Your task to perform on an android device: toggle priority inbox in the gmail app Image 0: 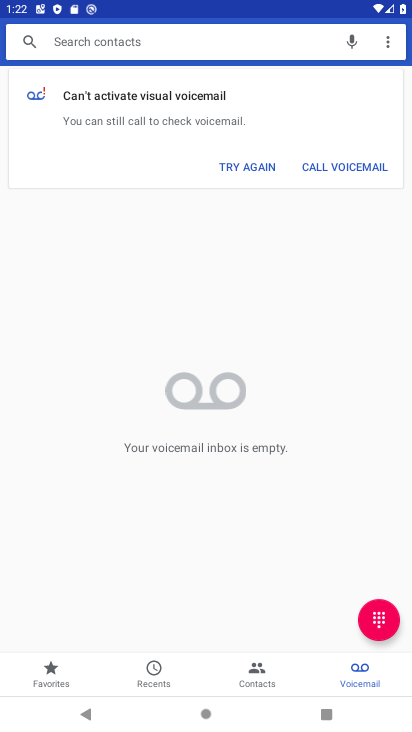
Step 0: press home button
Your task to perform on an android device: toggle priority inbox in the gmail app Image 1: 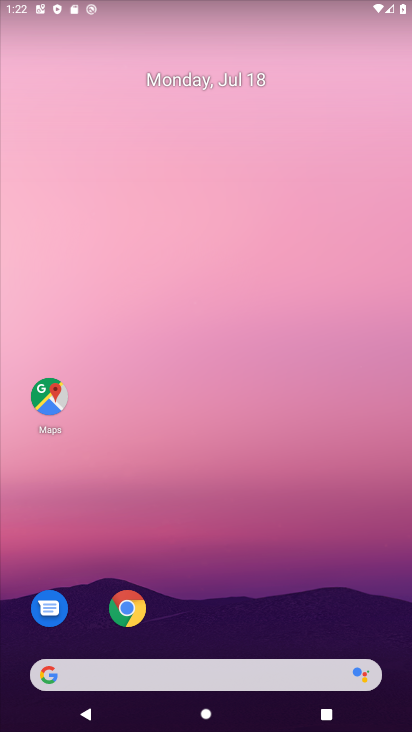
Step 1: drag from (238, 675) to (235, 85)
Your task to perform on an android device: toggle priority inbox in the gmail app Image 2: 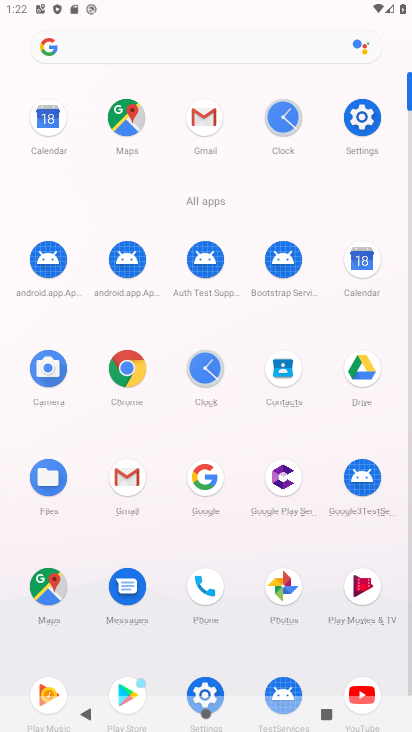
Step 2: click (126, 472)
Your task to perform on an android device: toggle priority inbox in the gmail app Image 3: 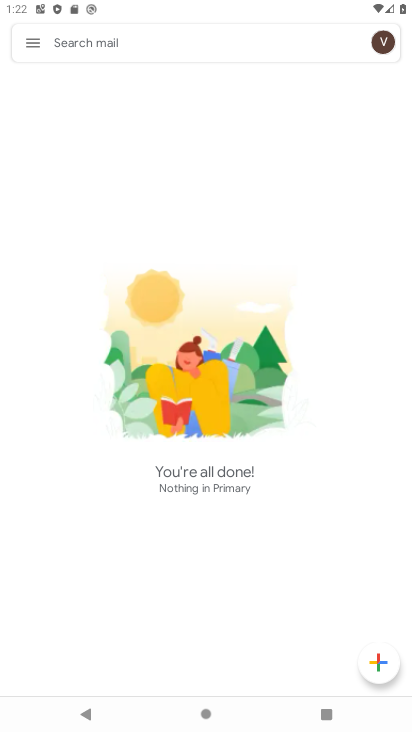
Step 3: click (30, 44)
Your task to perform on an android device: toggle priority inbox in the gmail app Image 4: 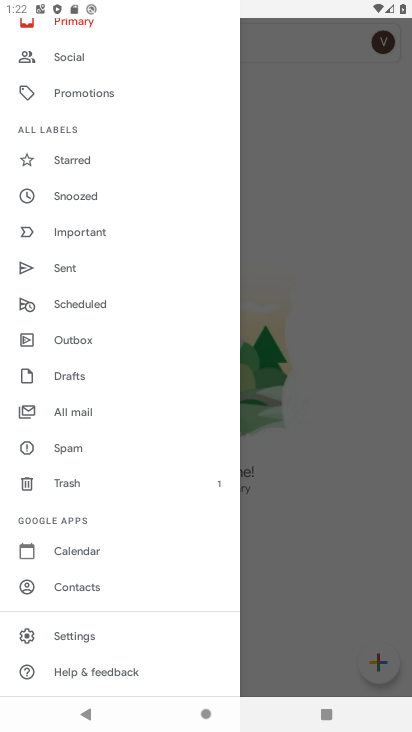
Step 4: click (77, 636)
Your task to perform on an android device: toggle priority inbox in the gmail app Image 5: 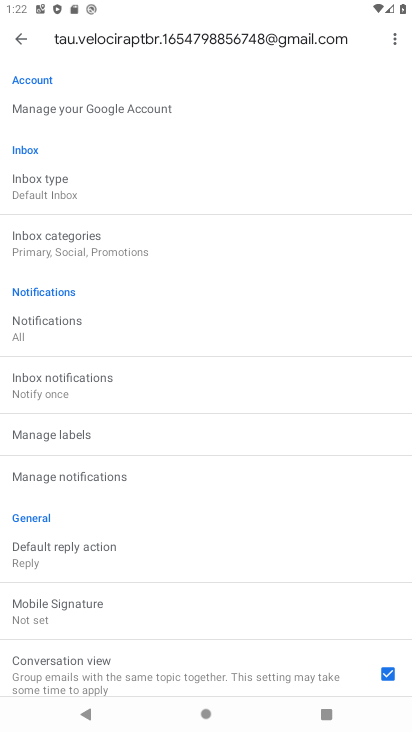
Step 5: click (44, 187)
Your task to perform on an android device: toggle priority inbox in the gmail app Image 6: 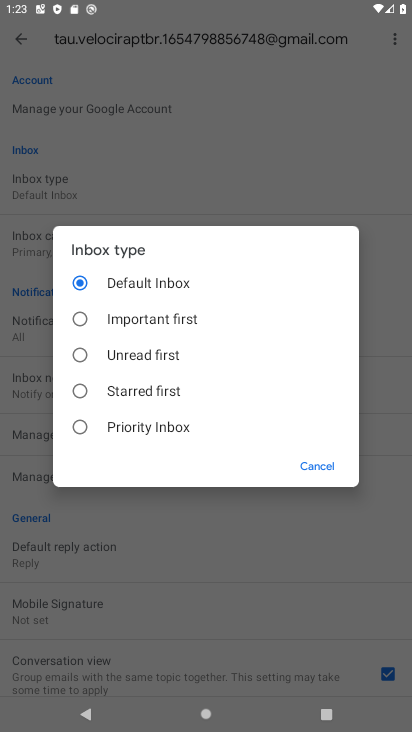
Step 6: click (79, 424)
Your task to perform on an android device: toggle priority inbox in the gmail app Image 7: 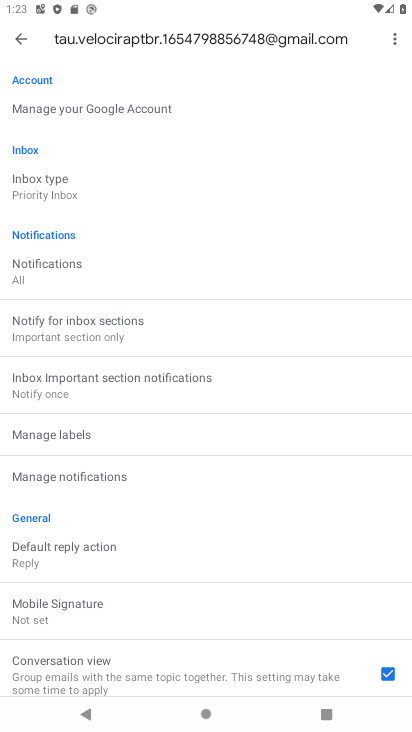
Step 7: task complete